Your task to perform on an android device: see tabs open on other devices in the chrome app Image 0: 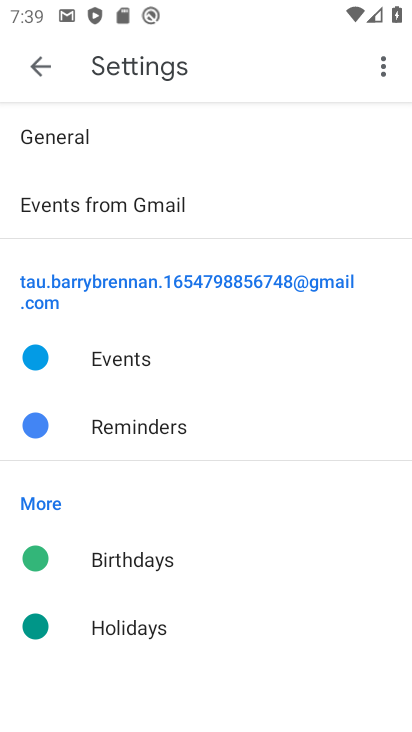
Step 0: press home button
Your task to perform on an android device: see tabs open on other devices in the chrome app Image 1: 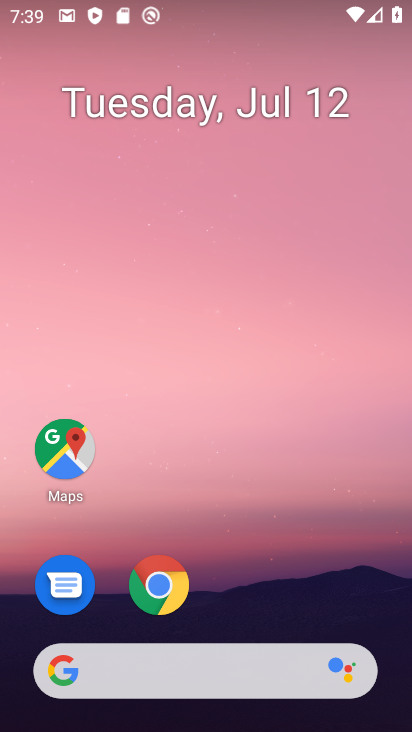
Step 1: click (176, 591)
Your task to perform on an android device: see tabs open on other devices in the chrome app Image 2: 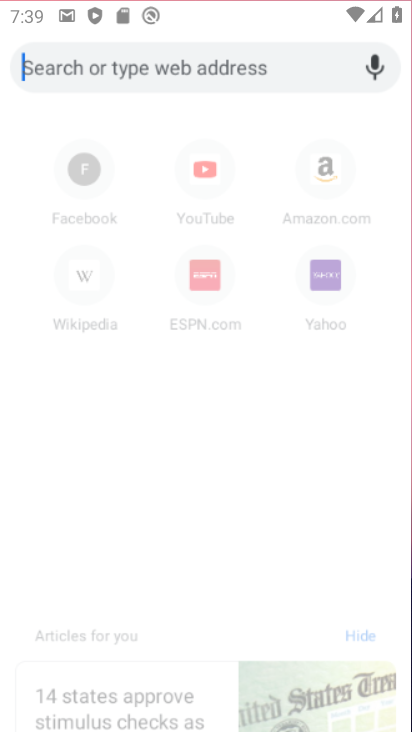
Step 2: click (176, 591)
Your task to perform on an android device: see tabs open on other devices in the chrome app Image 3: 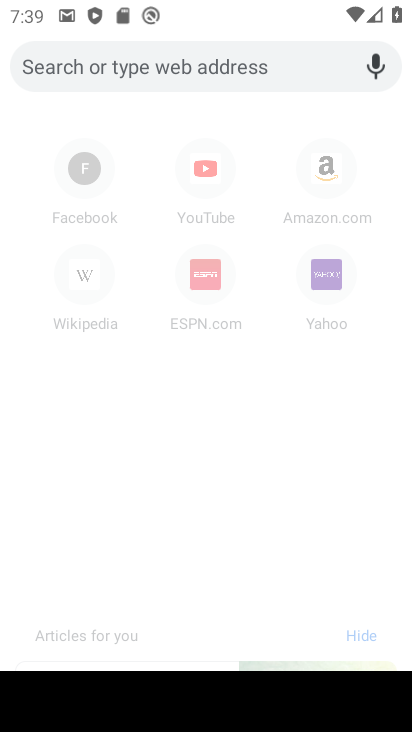
Step 3: press back button
Your task to perform on an android device: see tabs open on other devices in the chrome app Image 4: 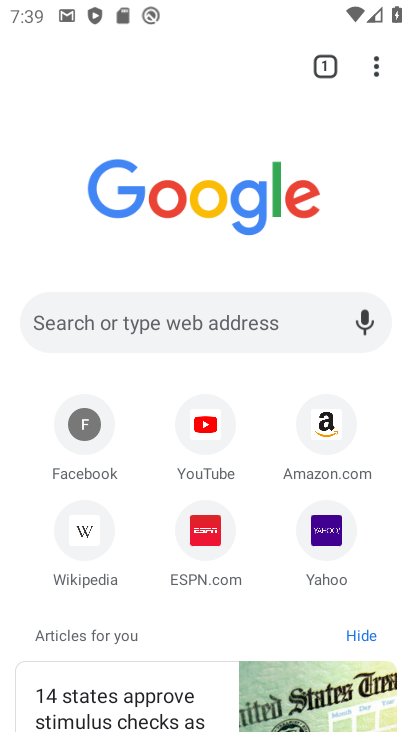
Step 4: click (377, 67)
Your task to perform on an android device: see tabs open on other devices in the chrome app Image 5: 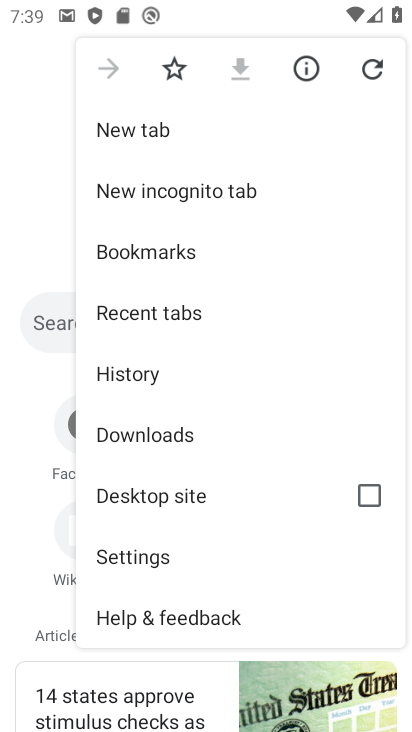
Step 5: click (179, 316)
Your task to perform on an android device: see tabs open on other devices in the chrome app Image 6: 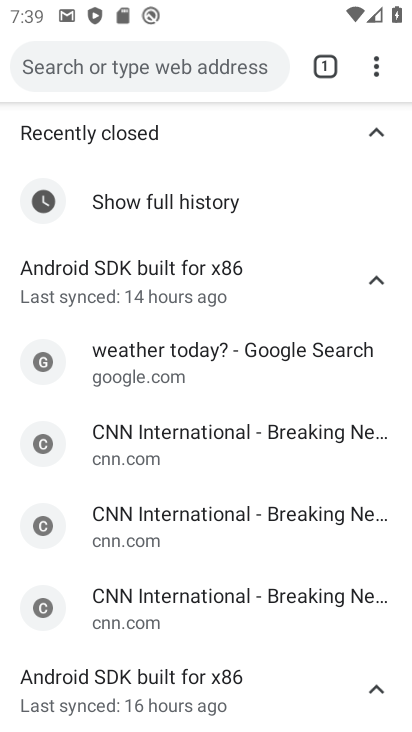
Step 6: task complete